Your task to perform on an android device: Search for Mexican restaurants on Maps Image 0: 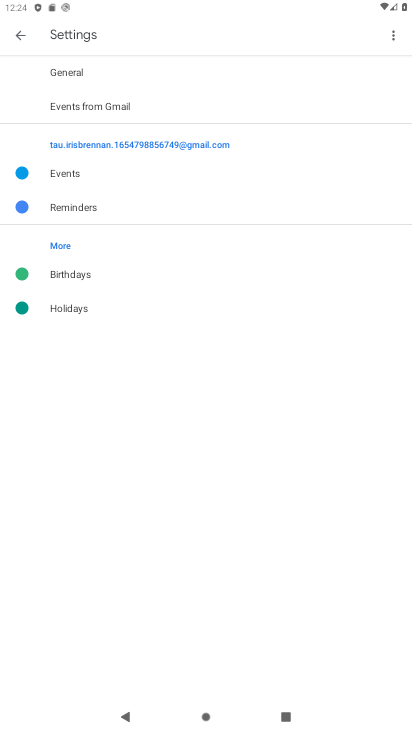
Step 0: press home button
Your task to perform on an android device: Search for Mexican restaurants on Maps Image 1: 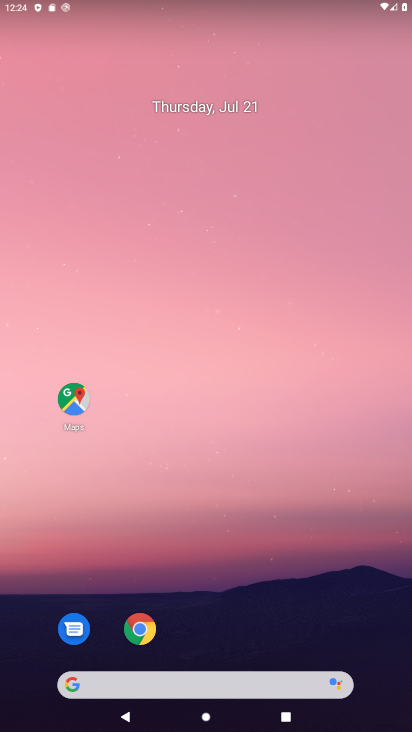
Step 1: drag from (261, 462) to (205, 56)
Your task to perform on an android device: Search for Mexican restaurants on Maps Image 2: 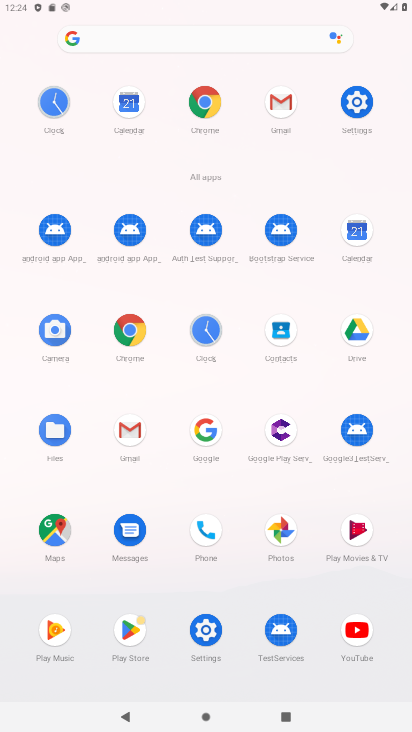
Step 2: click (55, 524)
Your task to perform on an android device: Search for Mexican restaurants on Maps Image 3: 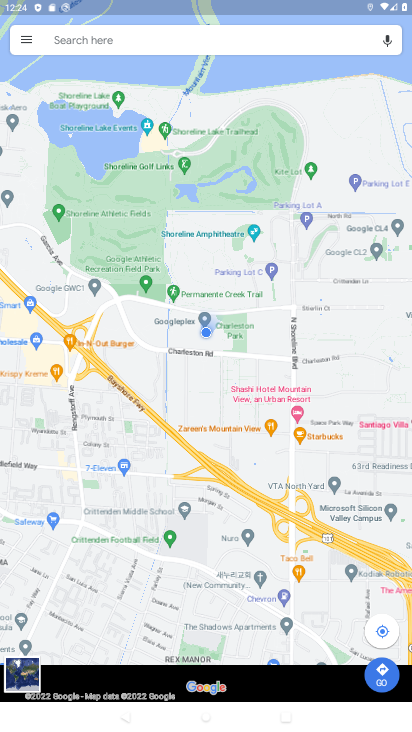
Step 3: click (250, 39)
Your task to perform on an android device: Search for Mexican restaurants on Maps Image 4: 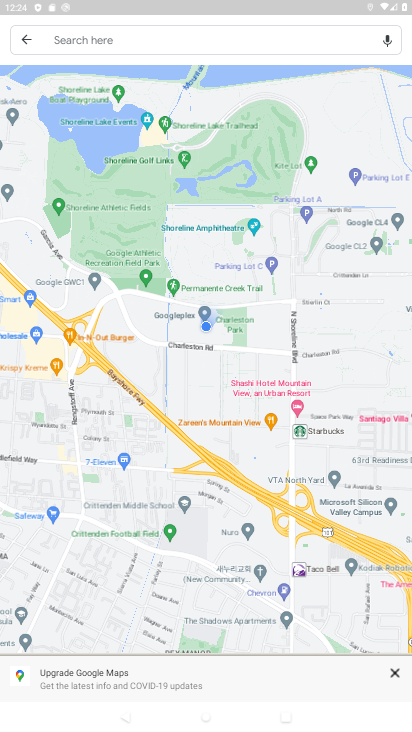
Step 4: click (250, 39)
Your task to perform on an android device: Search for Mexican restaurants on Maps Image 5: 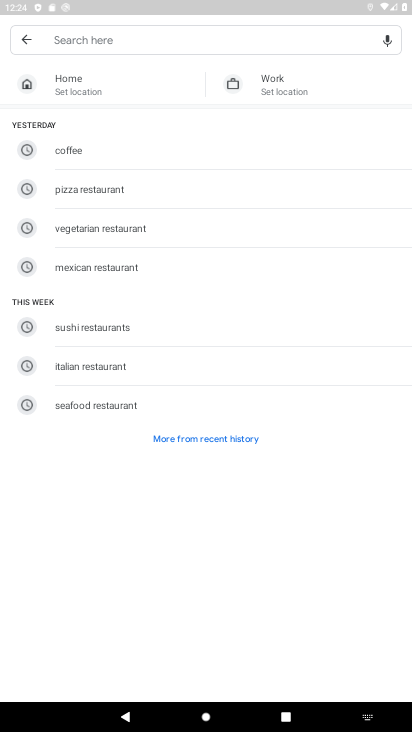
Step 5: type "Mexican restaurants"
Your task to perform on an android device: Search for Mexican restaurants on Maps Image 6: 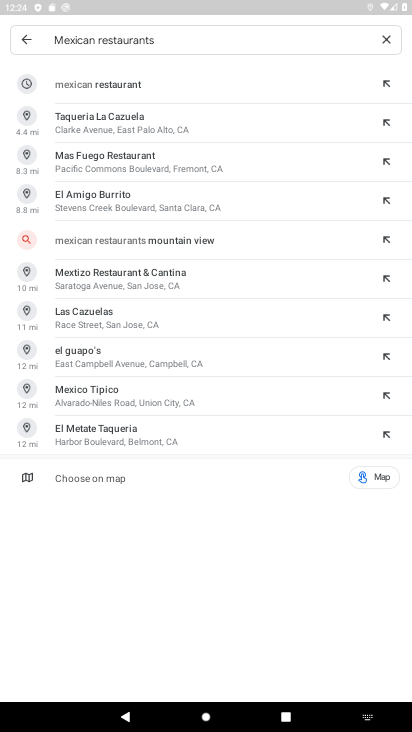
Step 6: press enter
Your task to perform on an android device: Search for Mexican restaurants on Maps Image 7: 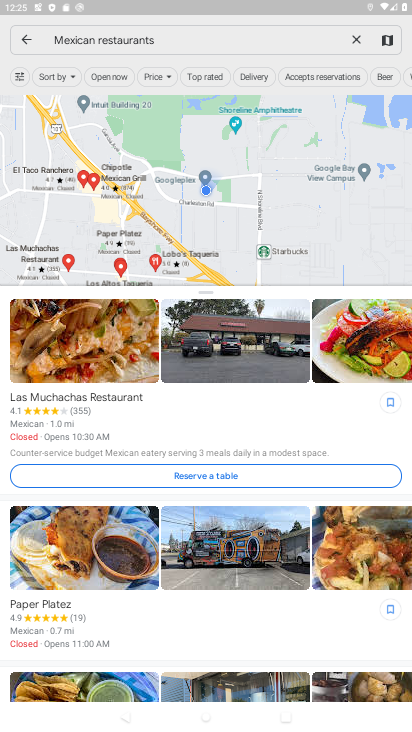
Step 7: task complete